Your task to perform on an android device: Open Google Chrome and open the bookmarks view Image 0: 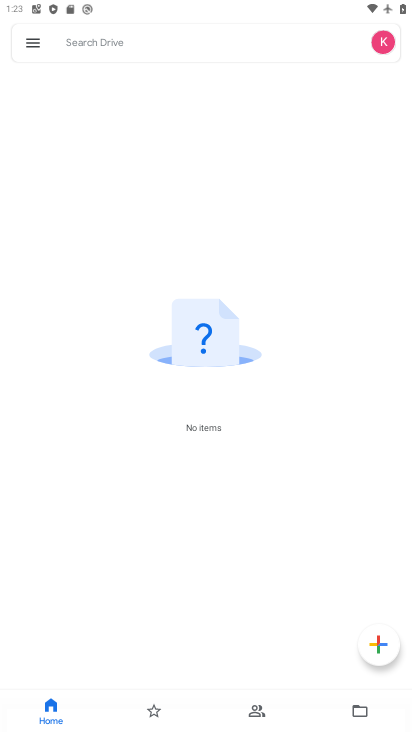
Step 0: press home button
Your task to perform on an android device: Open Google Chrome and open the bookmarks view Image 1: 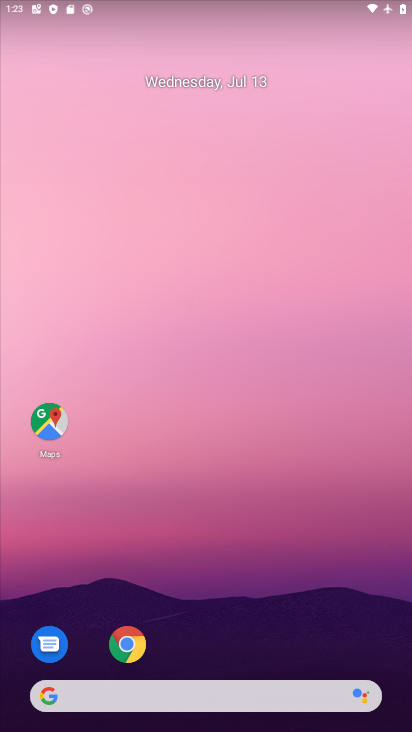
Step 1: drag from (319, 564) to (274, 114)
Your task to perform on an android device: Open Google Chrome and open the bookmarks view Image 2: 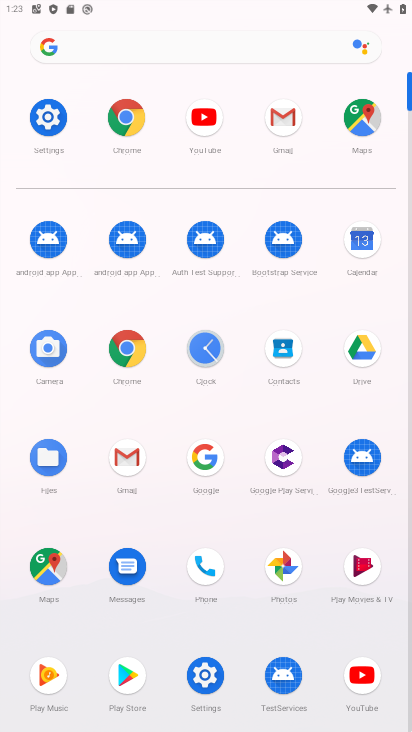
Step 2: click (131, 348)
Your task to perform on an android device: Open Google Chrome and open the bookmarks view Image 3: 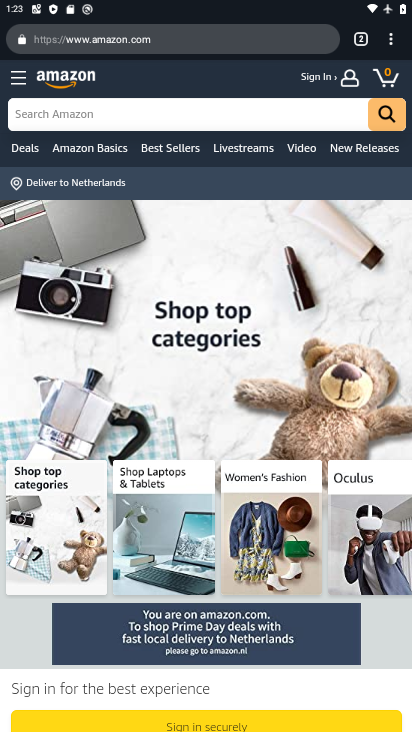
Step 3: task complete